Your task to perform on an android device: Open the Play Movies app and select the watchlist tab. Image 0: 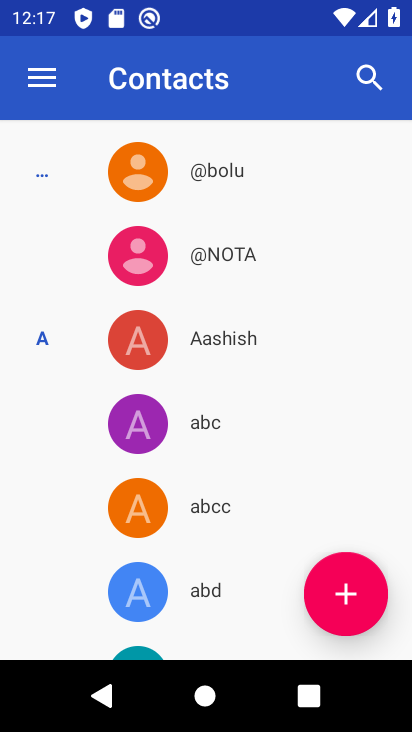
Step 0: task complete